Your task to perform on an android device: Go to Wikipedia Image 0: 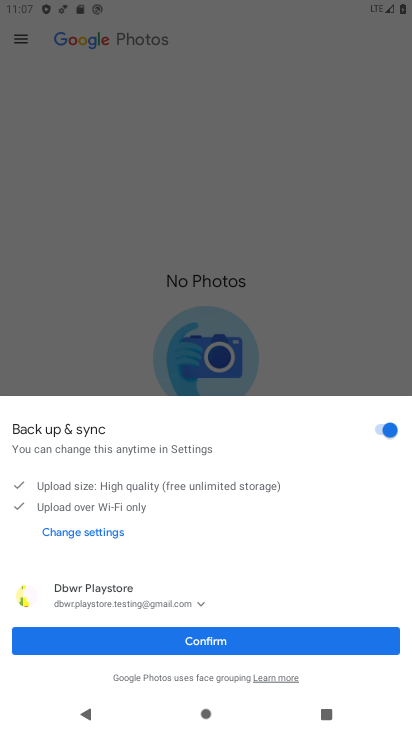
Step 0: press home button
Your task to perform on an android device: Go to Wikipedia Image 1: 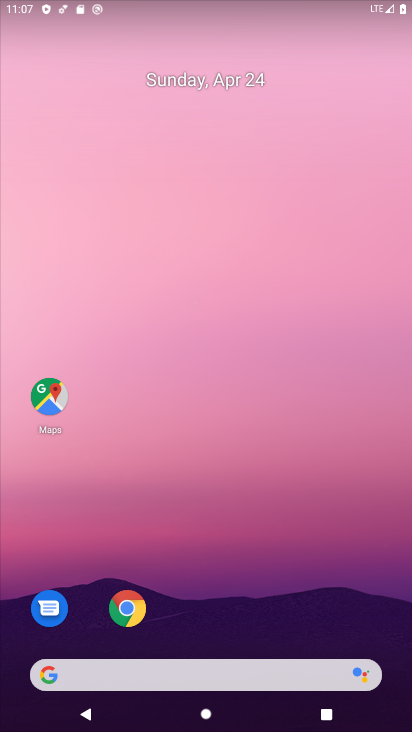
Step 1: click (126, 615)
Your task to perform on an android device: Go to Wikipedia Image 2: 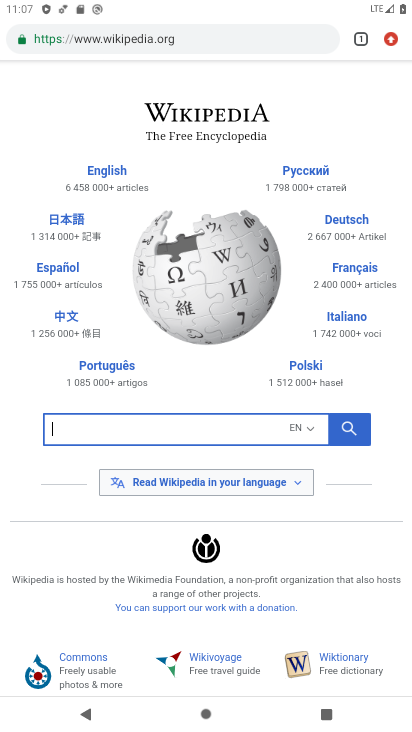
Step 2: task complete